Your task to perform on an android device: Search for Italian restaurants on Maps Image 0: 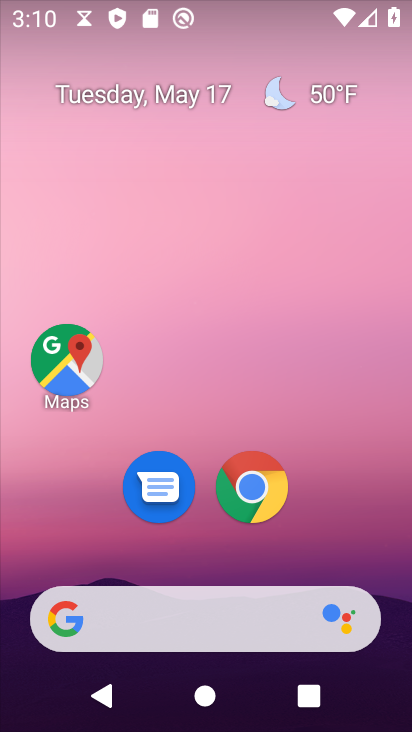
Step 0: click (71, 361)
Your task to perform on an android device: Search for Italian restaurants on Maps Image 1: 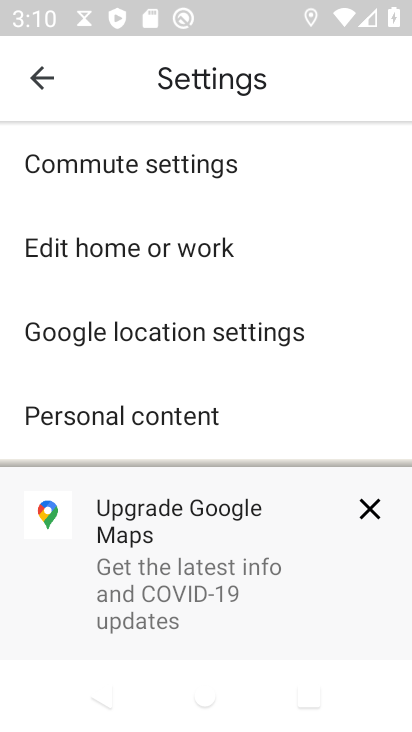
Step 1: press back button
Your task to perform on an android device: Search for Italian restaurants on Maps Image 2: 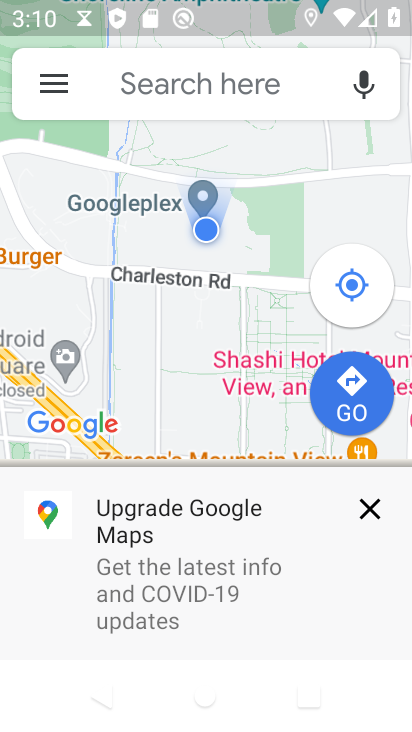
Step 2: click (170, 80)
Your task to perform on an android device: Search for Italian restaurants on Maps Image 3: 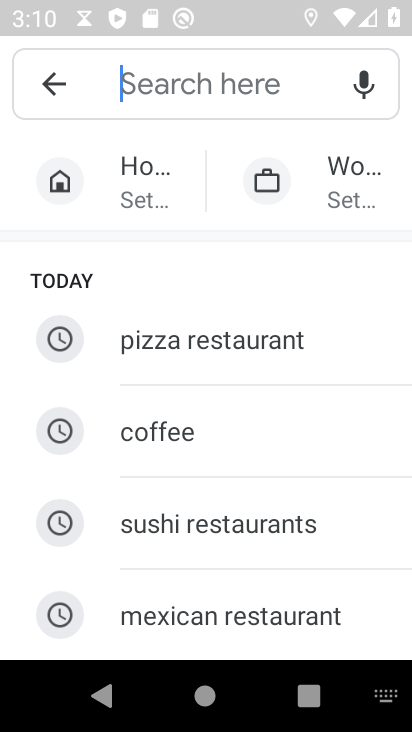
Step 3: type "italian restaurants"
Your task to perform on an android device: Search for Italian restaurants on Maps Image 4: 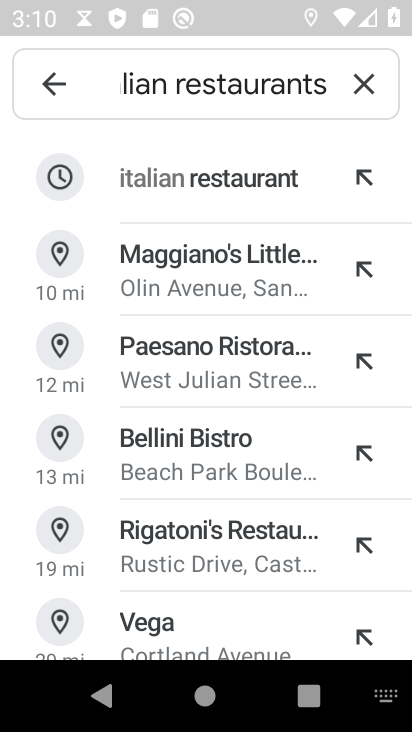
Step 4: click (209, 182)
Your task to perform on an android device: Search for Italian restaurants on Maps Image 5: 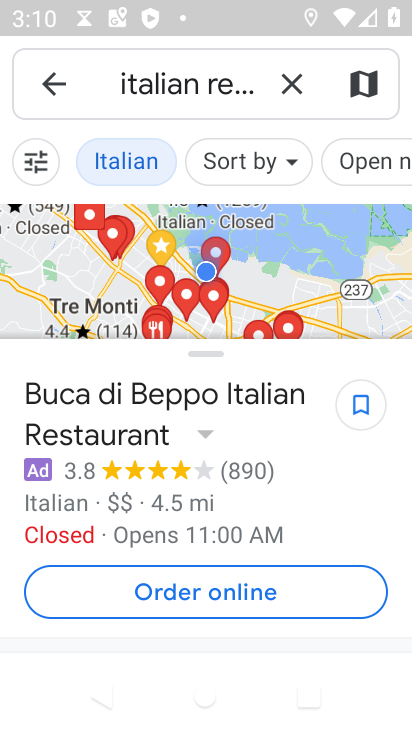
Step 5: task complete